Your task to perform on an android device: all mails in gmail Image 0: 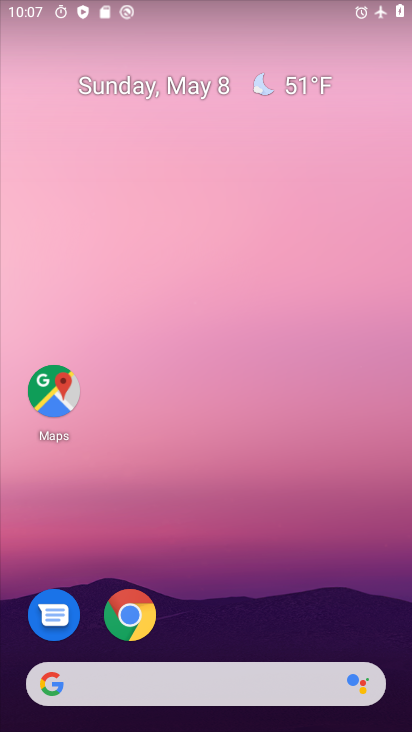
Step 0: drag from (208, 618) to (249, 163)
Your task to perform on an android device: all mails in gmail Image 1: 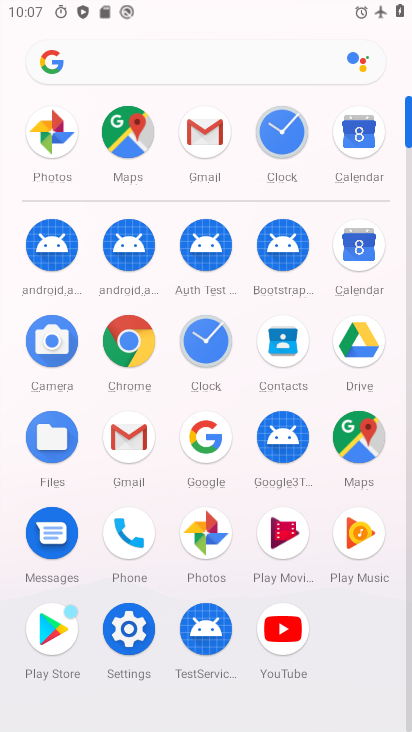
Step 1: click (204, 165)
Your task to perform on an android device: all mails in gmail Image 2: 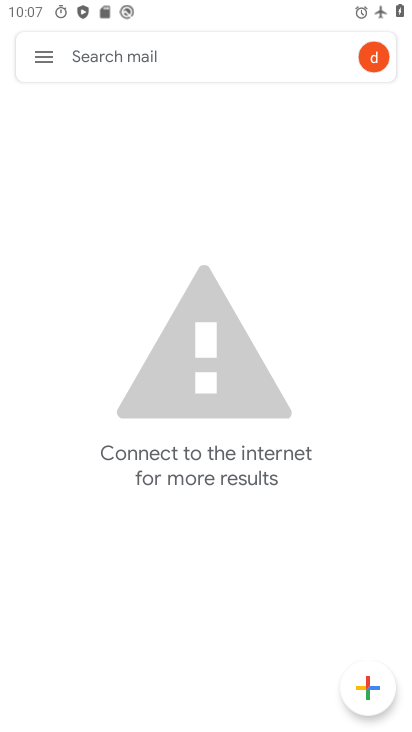
Step 2: click (51, 49)
Your task to perform on an android device: all mails in gmail Image 3: 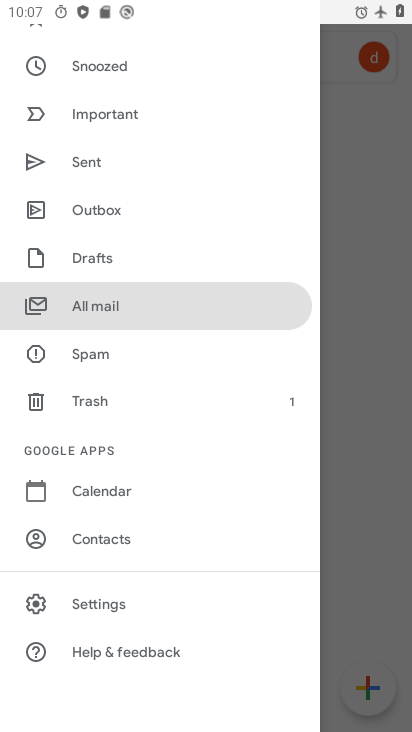
Step 3: task complete